Your task to perform on an android device: uninstall "File Manager" Image 0: 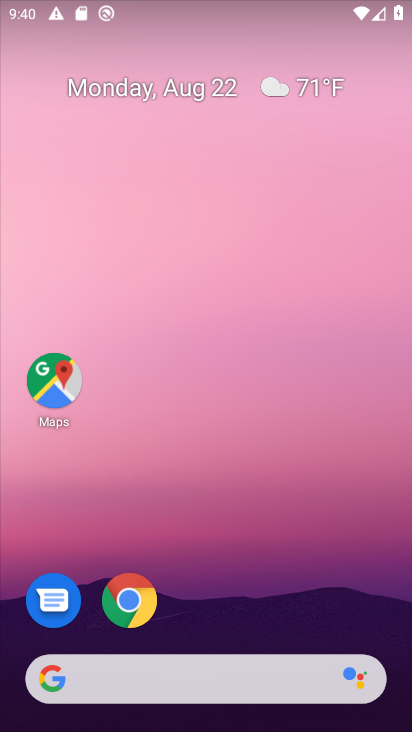
Step 0: drag from (212, 570) to (228, 168)
Your task to perform on an android device: uninstall "File Manager" Image 1: 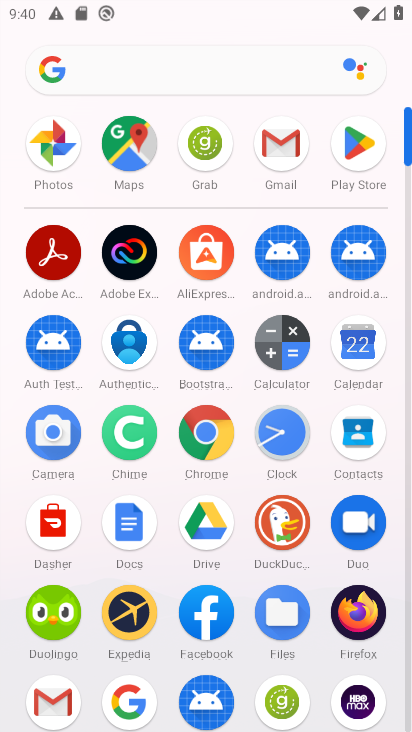
Step 1: click (368, 142)
Your task to perform on an android device: uninstall "File Manager" Image 2: 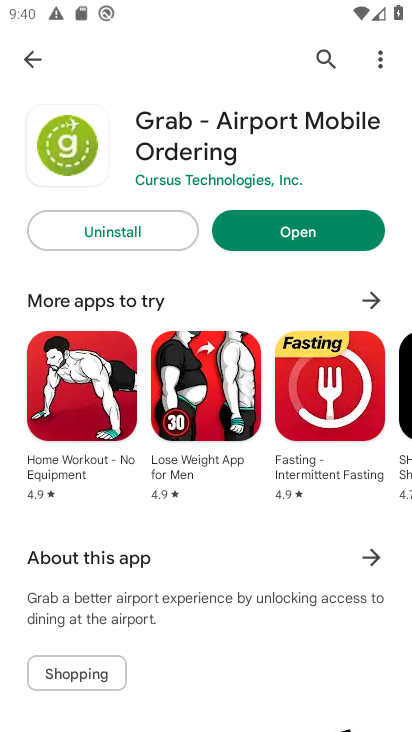
Step 2: click (326, 49)
Your task to perform on an android device: uninstall "File Manager" Image 3: 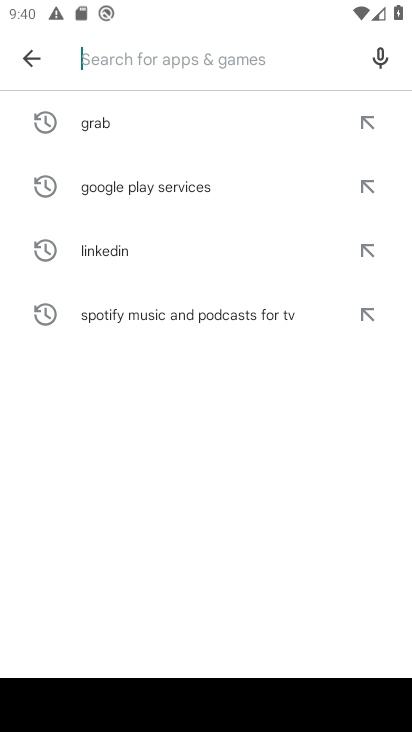
Step 3: click (236, 63)
Your task to perform on an android device: uninstall "File Manager" Image 4: 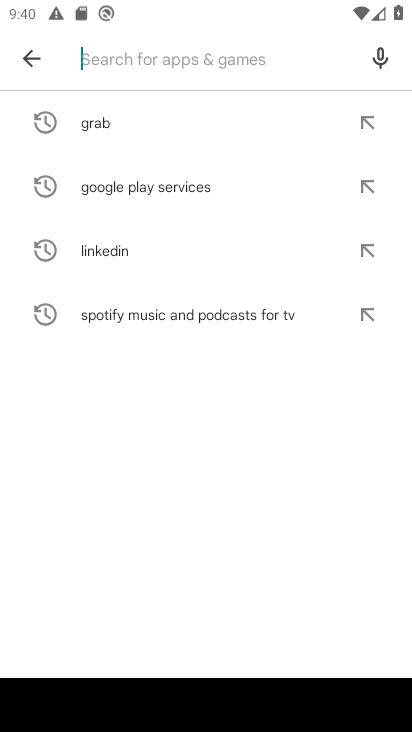
Step 4: type "File Manage"
Your task to perform on an android device: uninstall "File Manager" Image 5: 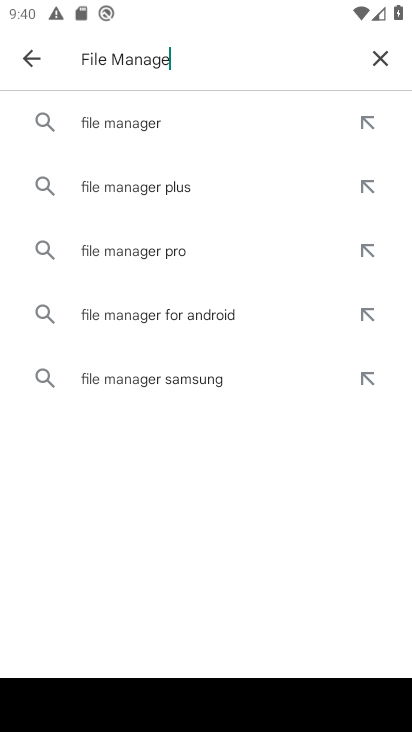
Step 5: type ""
Your task to perform on an android device: uninstall "File Manager" Image 6: 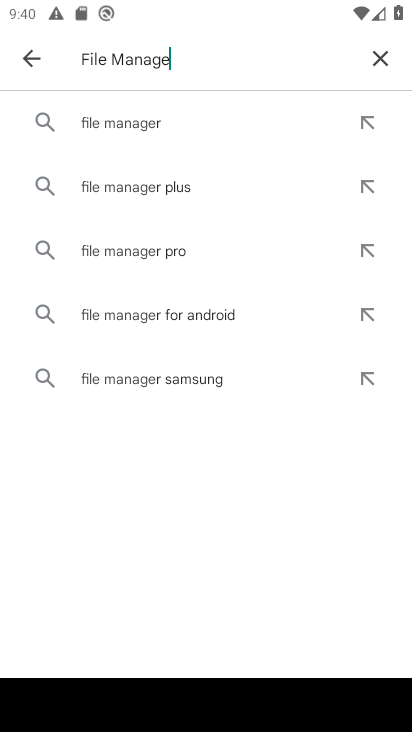
Step 6: click (164, 121)
Your task to perform on an android device: uninstall "File Manager" Image 7: 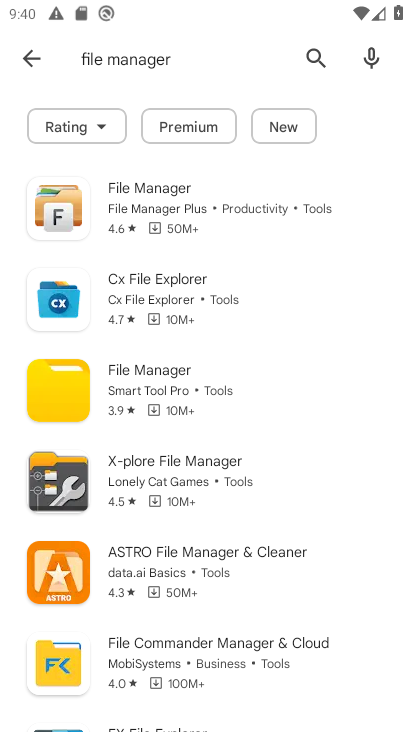
Step 7: click (161, 182)
Your task to perform on an android device: uninstall "File Manager" Image 8: 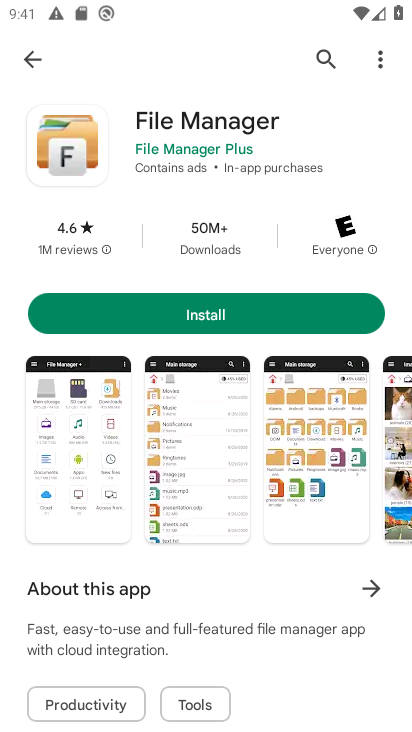
Step 8: task complete